Your task to perform on an android device: Search for pizza restaurants on Maps Image 0: 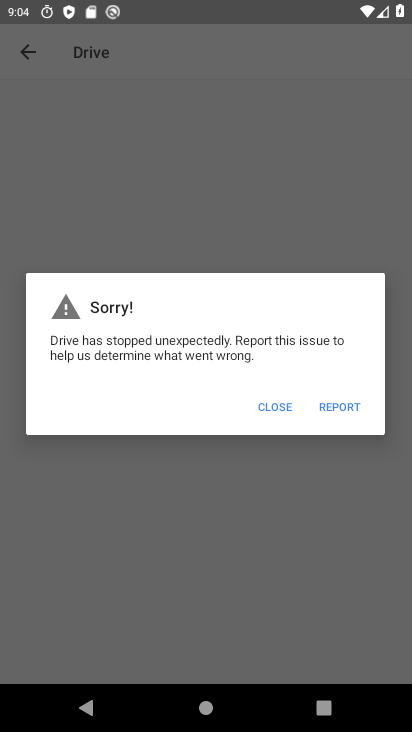
Step 0: press home button
Your task to perform on an android device: Search for pizza restaurants on Maps Image 1: 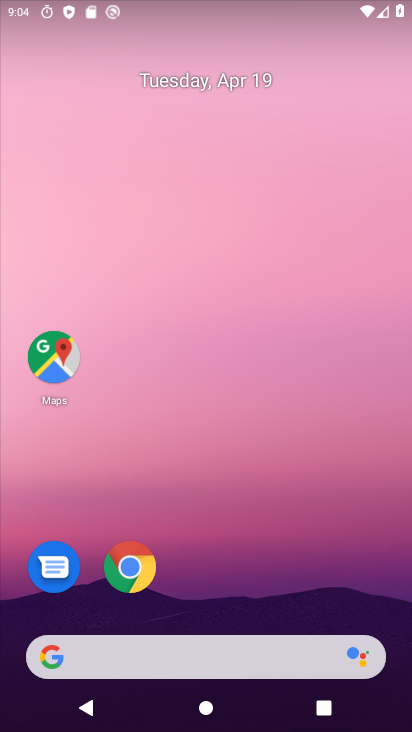
Step 1: drag from (209, 727) to (170, 85)
Your task to perform on an android device: Search for pizza restaurants on Maps Image 2: 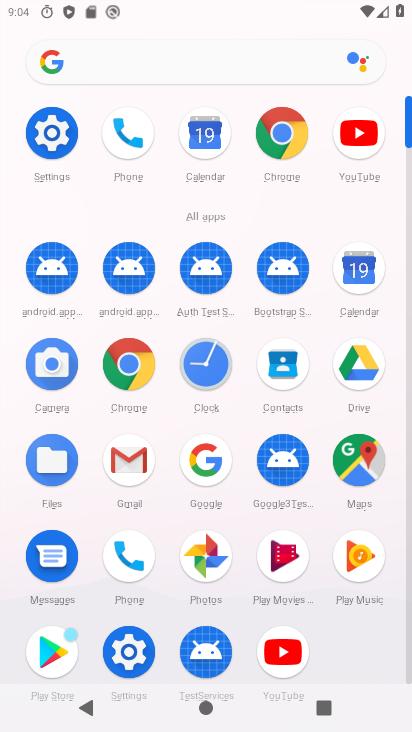
Step 2: click (360, 463)
Your task to perform on an android device: Search for pizza restaurants on Maps Image 3: 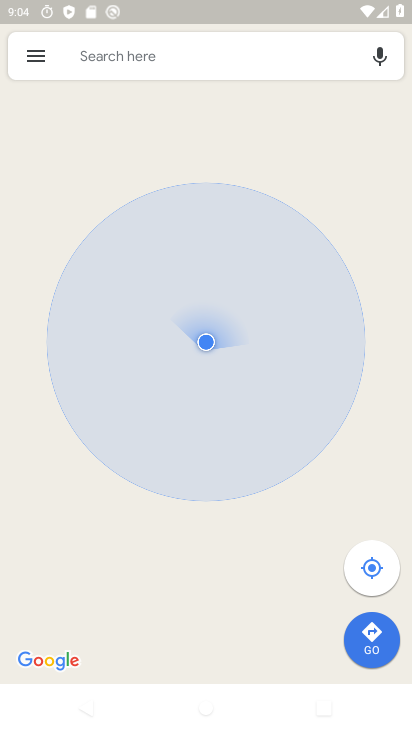
Step 3: click (185, 57)
Your task to perform on an android device: Search for pizza restaurants on Maps Image 4: 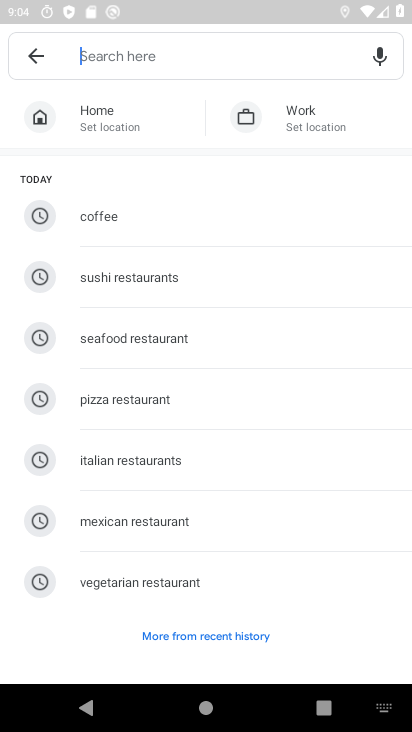
Step 4: type "Pizza restaurants"
Your task to perform on an android device: Search for pizza restaurants on Maps Image 5: 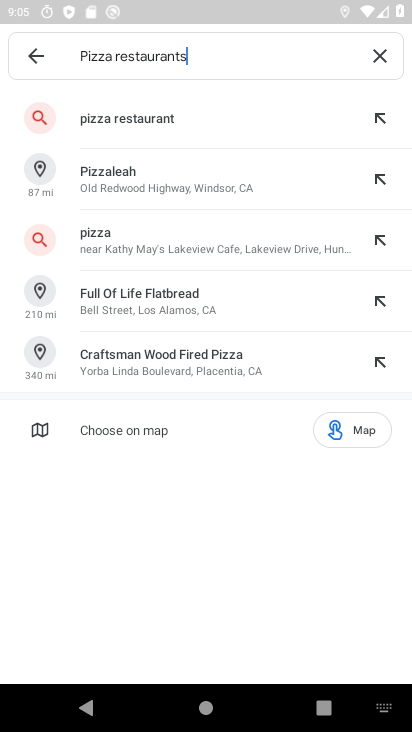
Step 5: click (156, 114)
Your task to perform on an android device: Search for pizza restaurants on Maps Image 6: 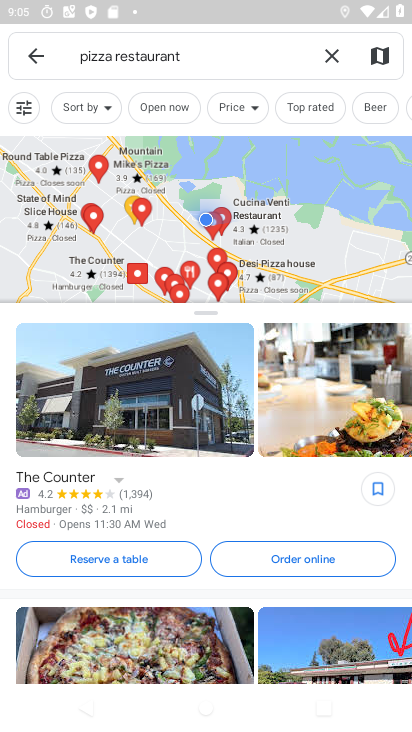
Step 6: task complete